Your task to perform on an android device: turn on the 24-hour format for clock Image 0: 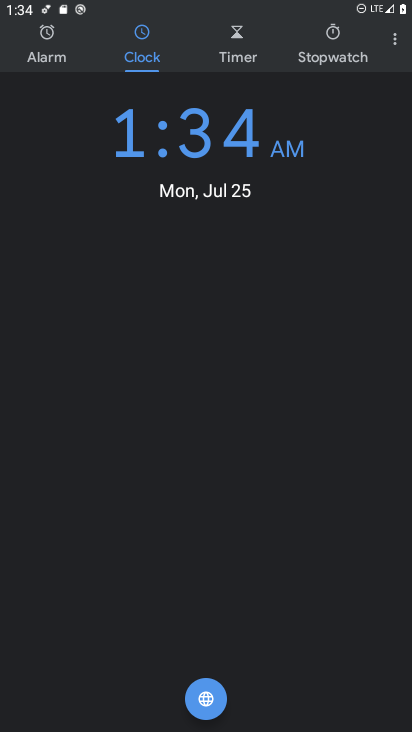
Step 0: press home button
Your task to perform on an android device: turn on the 24-hour format for clock Image 1: 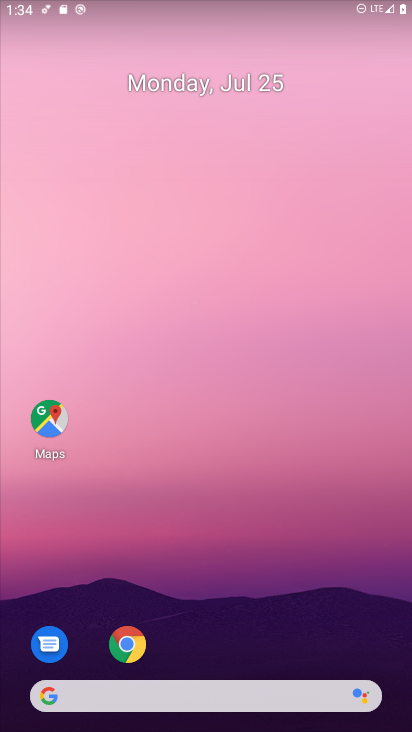
Step 1: drag from (207, 727) to (227, 61)
Your task to perform on an android device: turn on the 24-hour format for clock Image 2: 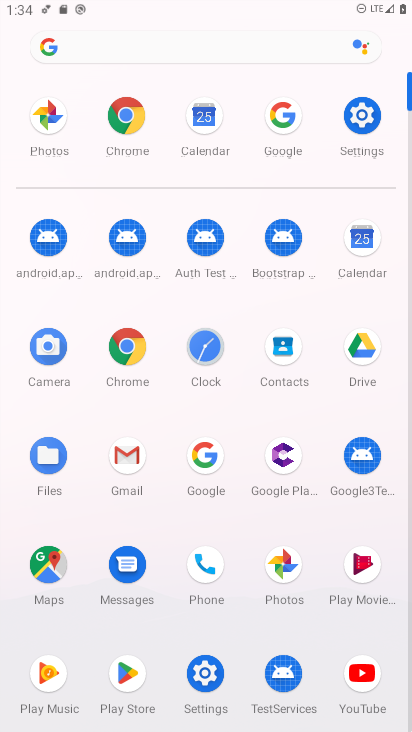
Step 2: click (207, 346)
Your task to perform on an android device: turn on the 24-hour format for clock Image 3: 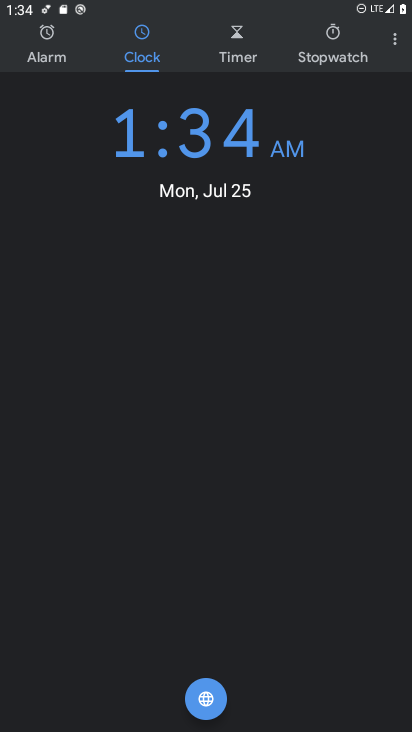
Step 3: click (394, 44)
Your task to perform on an android device: turn on the 24-hour format for clock Image 4: 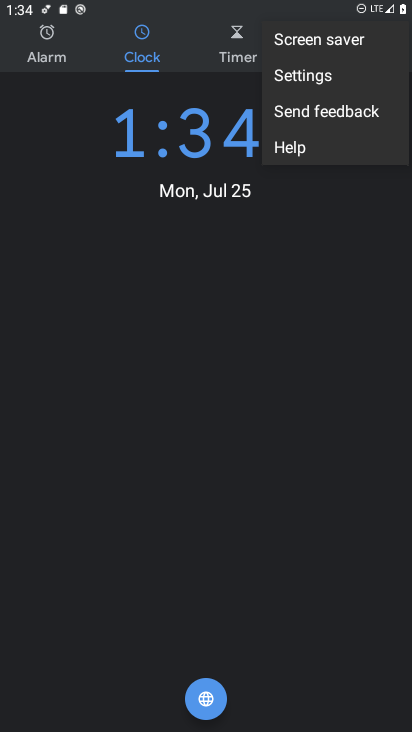
Step 4: click (319, 74)
Your task to perform on an android device: turn on the 24-hour format for clock Image 5: 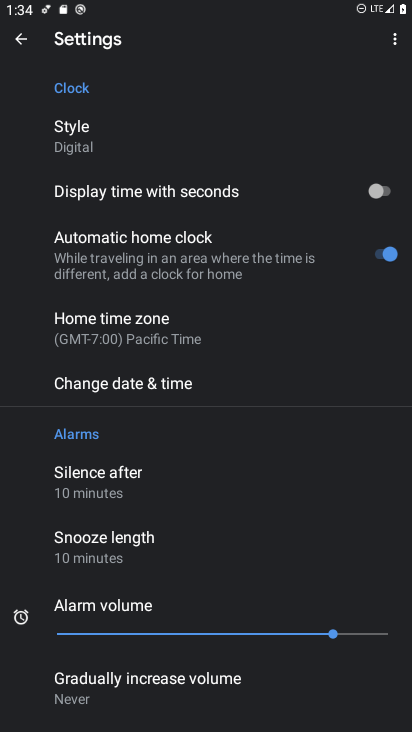
Step 5: drag from (192, 104) to (192, 377)
Your task to perform on an android device: turn on the 24-hour format for clock Image 6: 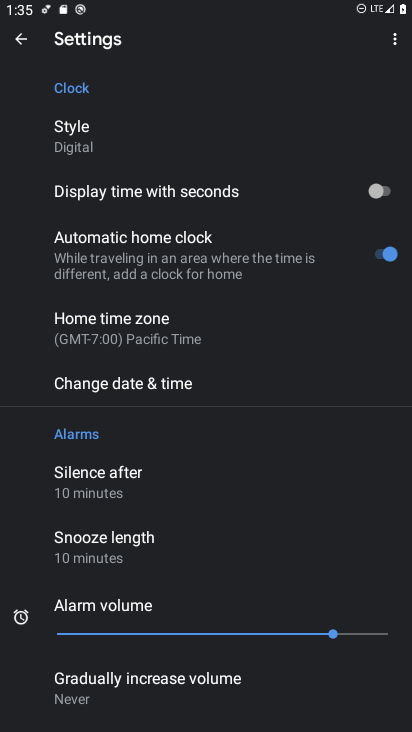
Step 6: click (148, 386)
Your task to perform on an android device: turn on the 24-hour format for clock Image 7: 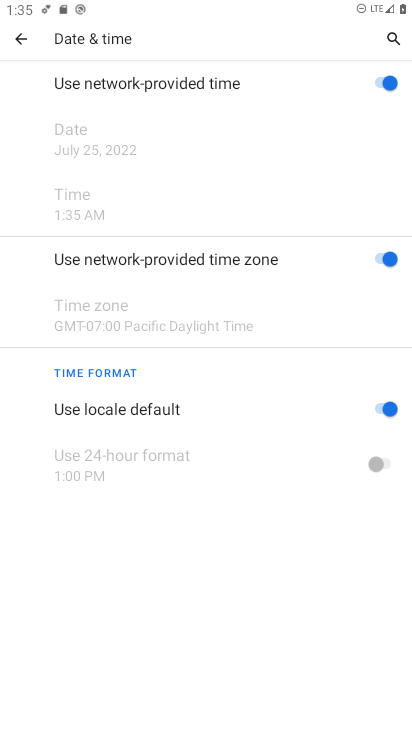
Step 7: click (389, 408)
Your task to perform on an android device: turn on the 24-hour format for clock Image 8: 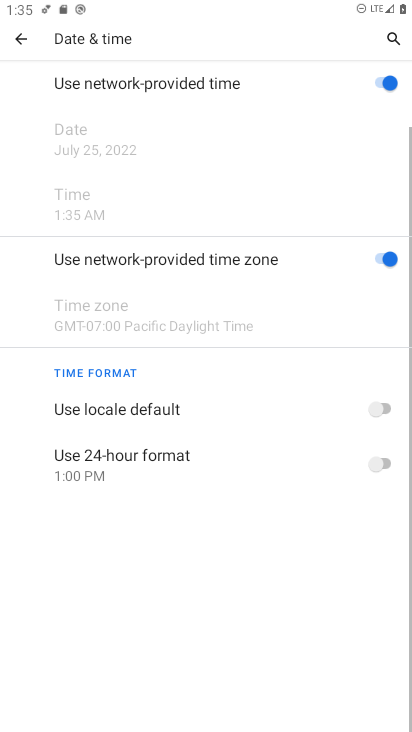
Step 8: click (386, 460)
Your task to perform on an android device: turn on the 24-hour format for clock Image 9: 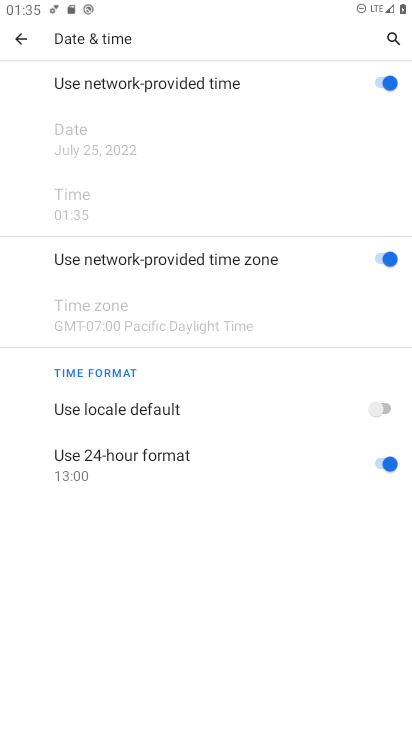
Step 9: task complete